Your task to perform on an android device: View the shopping cart on costco. Search for "razer blade" on costco, select the first entry, and add it to the cart. Image 0: 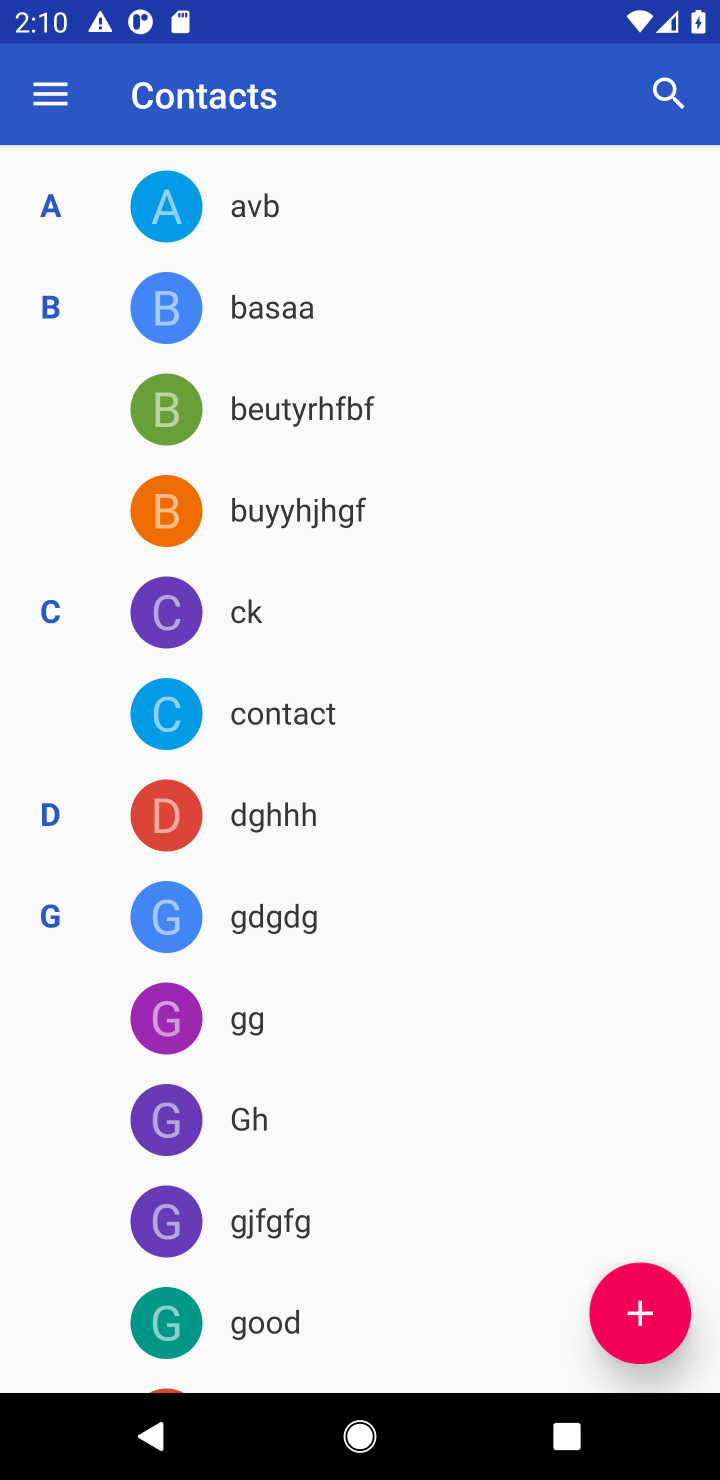
Step 0: press home button
Your task to perform on an android device: View the shopping cart on costco. Search for "razer blade" on costco, select the first entry, and add it to the cart. Image 1: 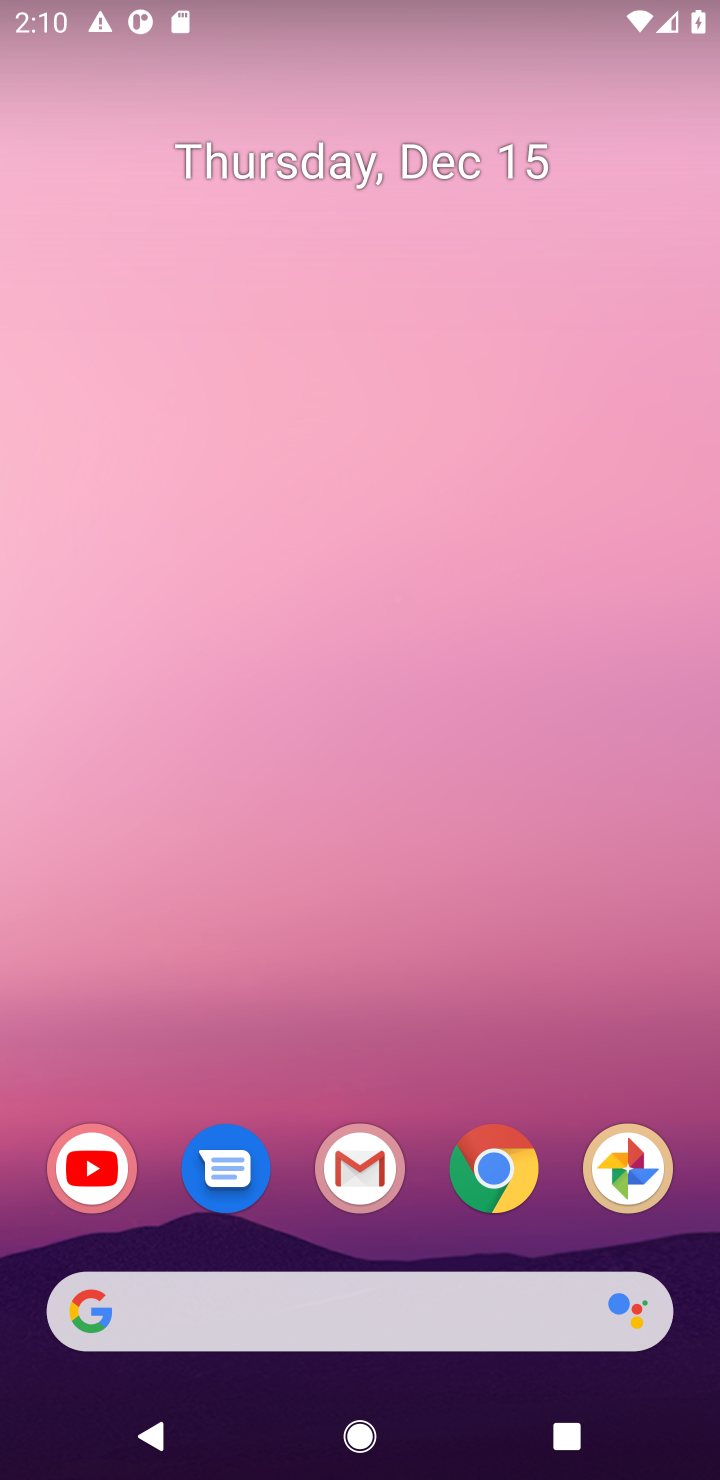
Step 1: click (493, 1175)
Your task to perform on an android device: View the shopping cart on costco. Search for "razer blade" on costco, select the first entry, and add it to the cart. Image 2: 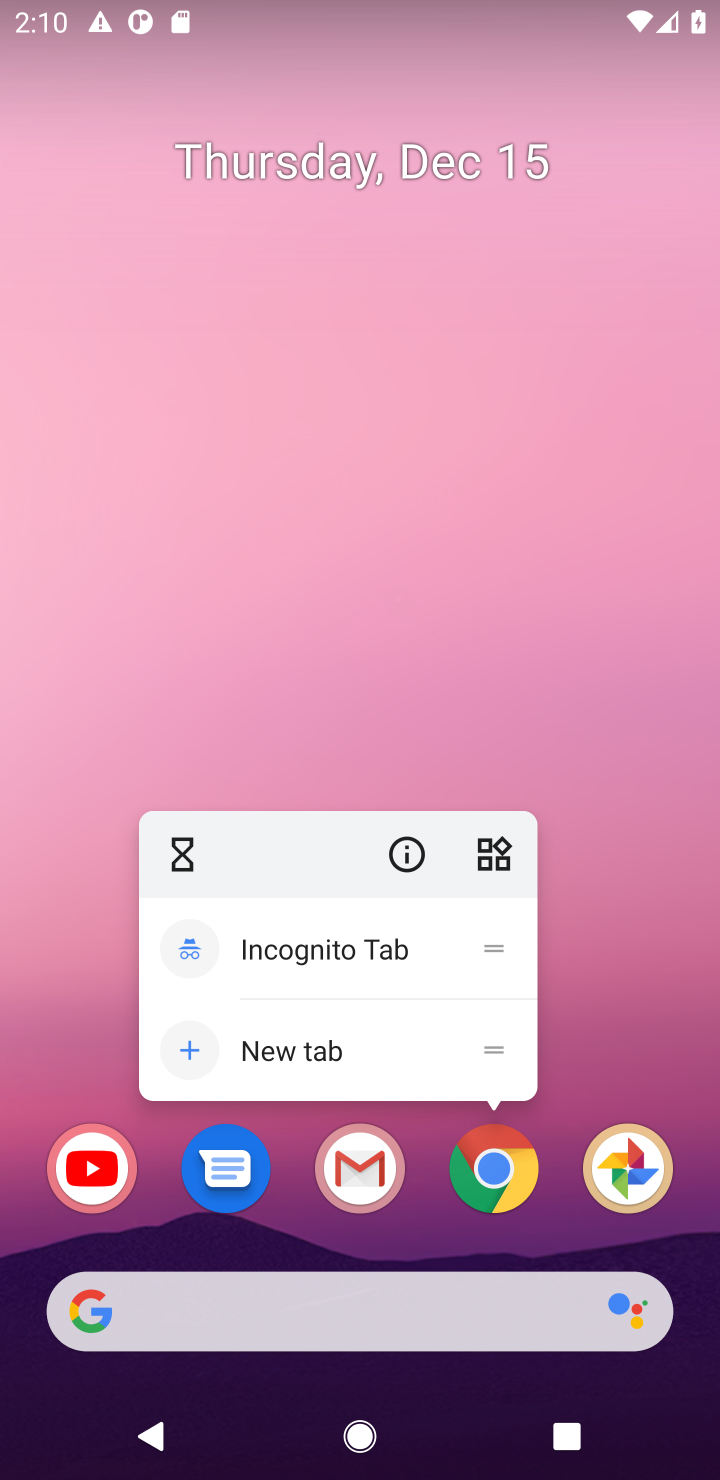
Step 2: click (493, 1175)
Your task to perform on an android device: View the shopping cart on costco. Search for "razer blade" on costco, select the first entry, and add it to the cart. Image 3: 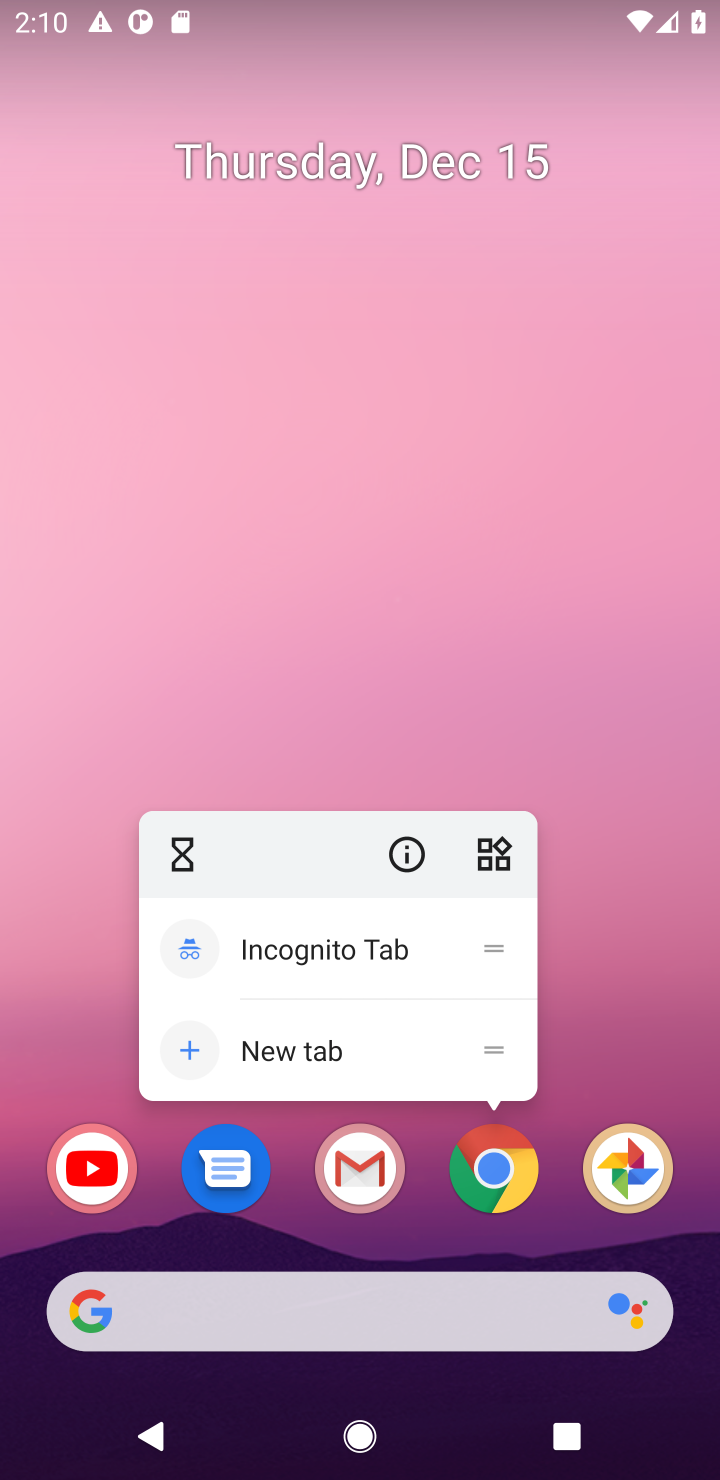
Step 3: click (493, 1175)
Your task to perform on an android device: View the shopping cart on costco. Search for "razer blade" on costco, select the first entry, and add it to the cart. Image 4: 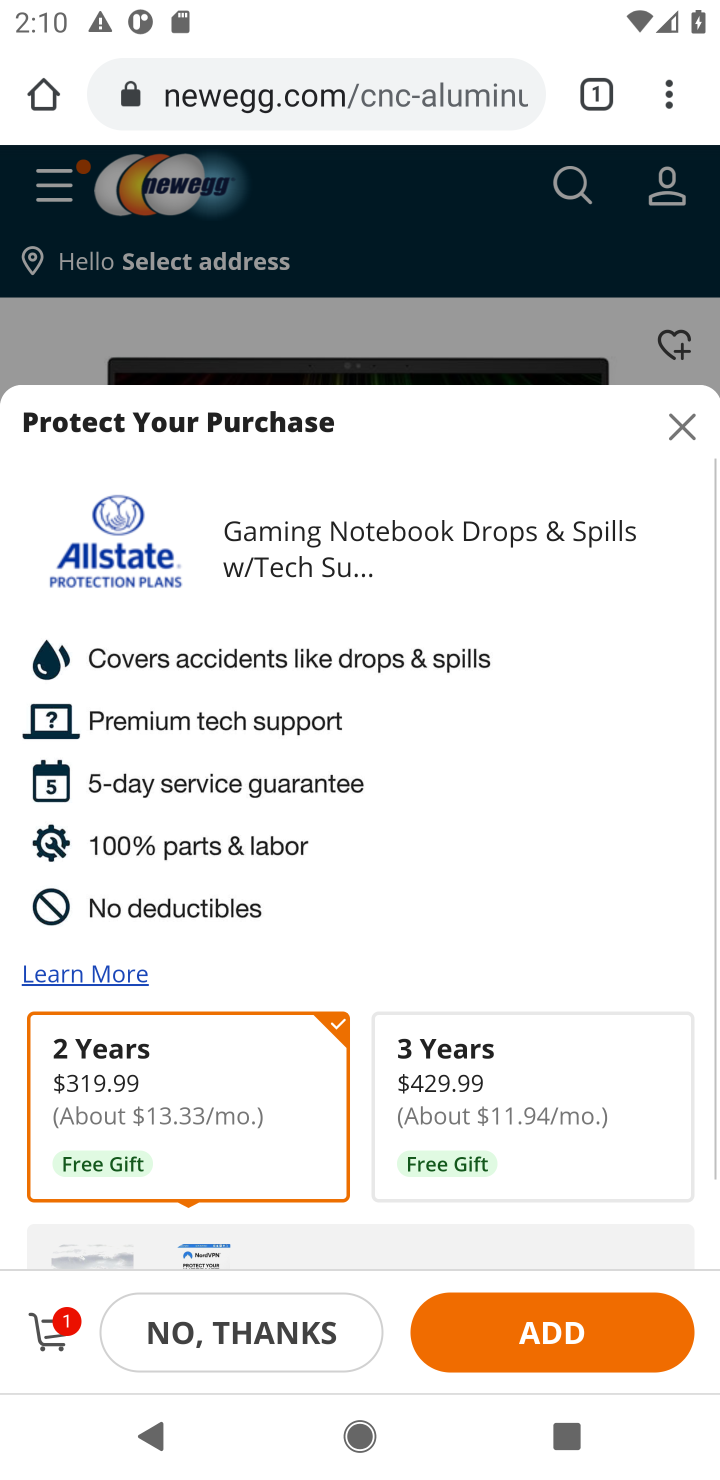
Step 4: click (323, 93)
Your task to perform on an android device: View the shopping cart on costco. Search for "razer blade" on costco, select the first entry, and add it to the cart. Image 5: 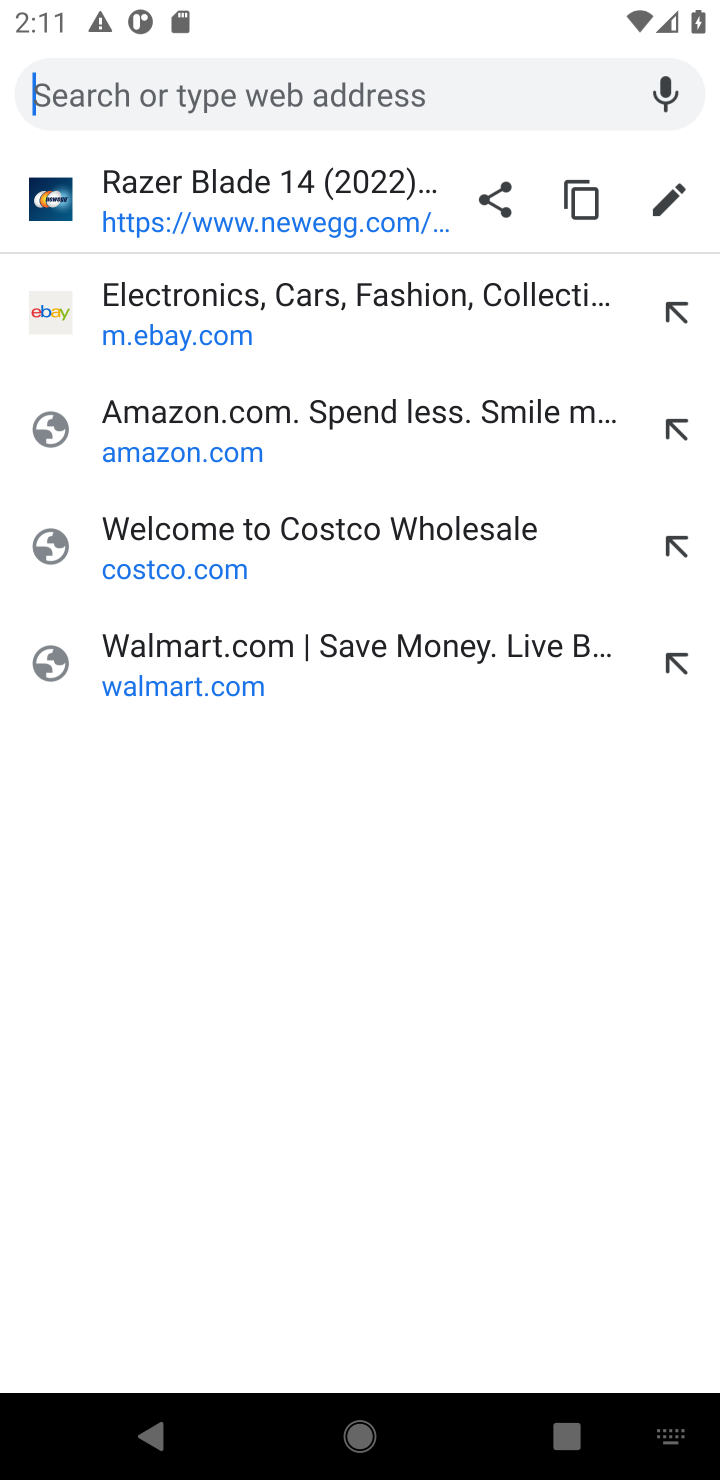
Step 5: click (302, 526)
Your task to perform on an android device: View the shopping cart on costco. Search for "razer blade" on costco, select the first entry, and add it to the cart. Image 6: 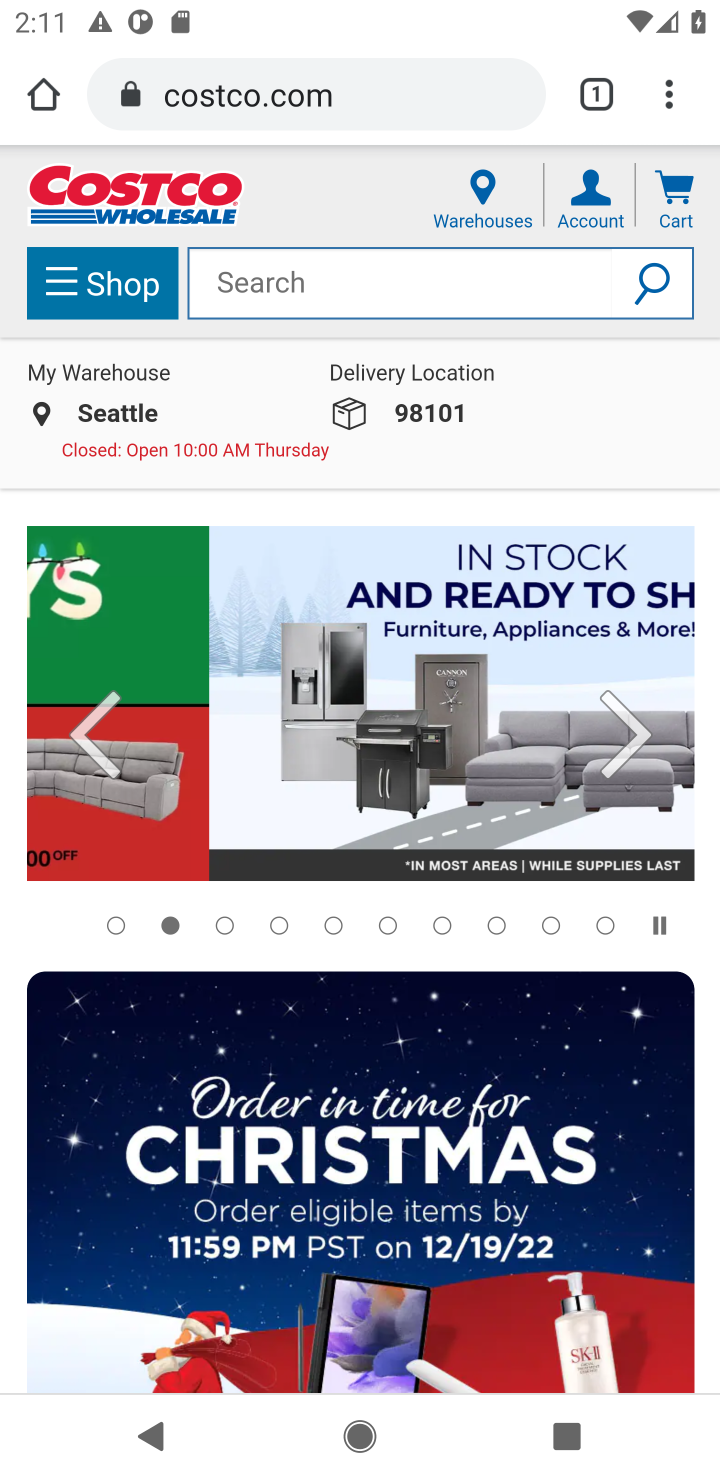
Step 6: click (681, 191)
Your task to perform on an android device: View the shopping cart on costco. Search for "razer blade" on costco, select the first entry, and add it to the cart. Image 7: 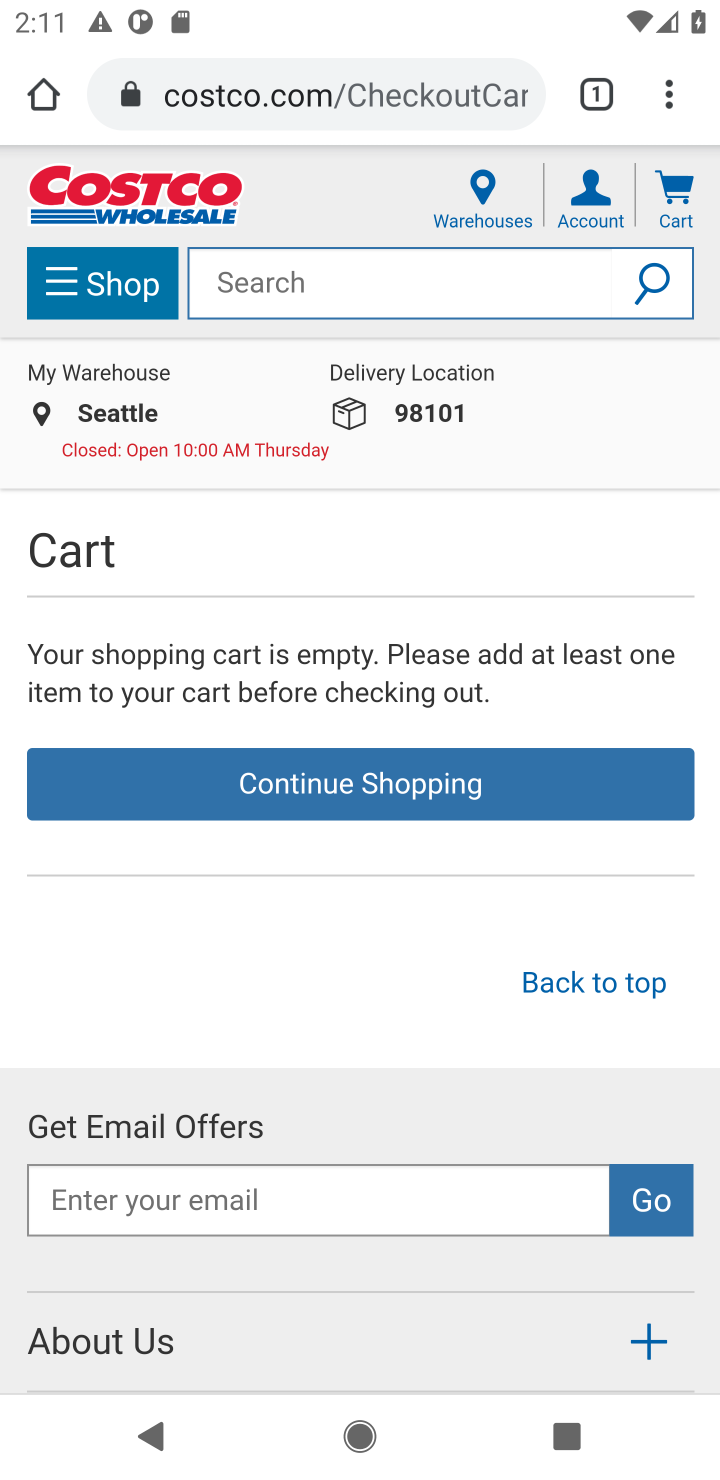
Step 7: click (550, 273)
Your task to perform on an android device: View the shopping cart on costco. Search for "razer blade" on costco, select the first entry, and add it to the cart. Image 8: 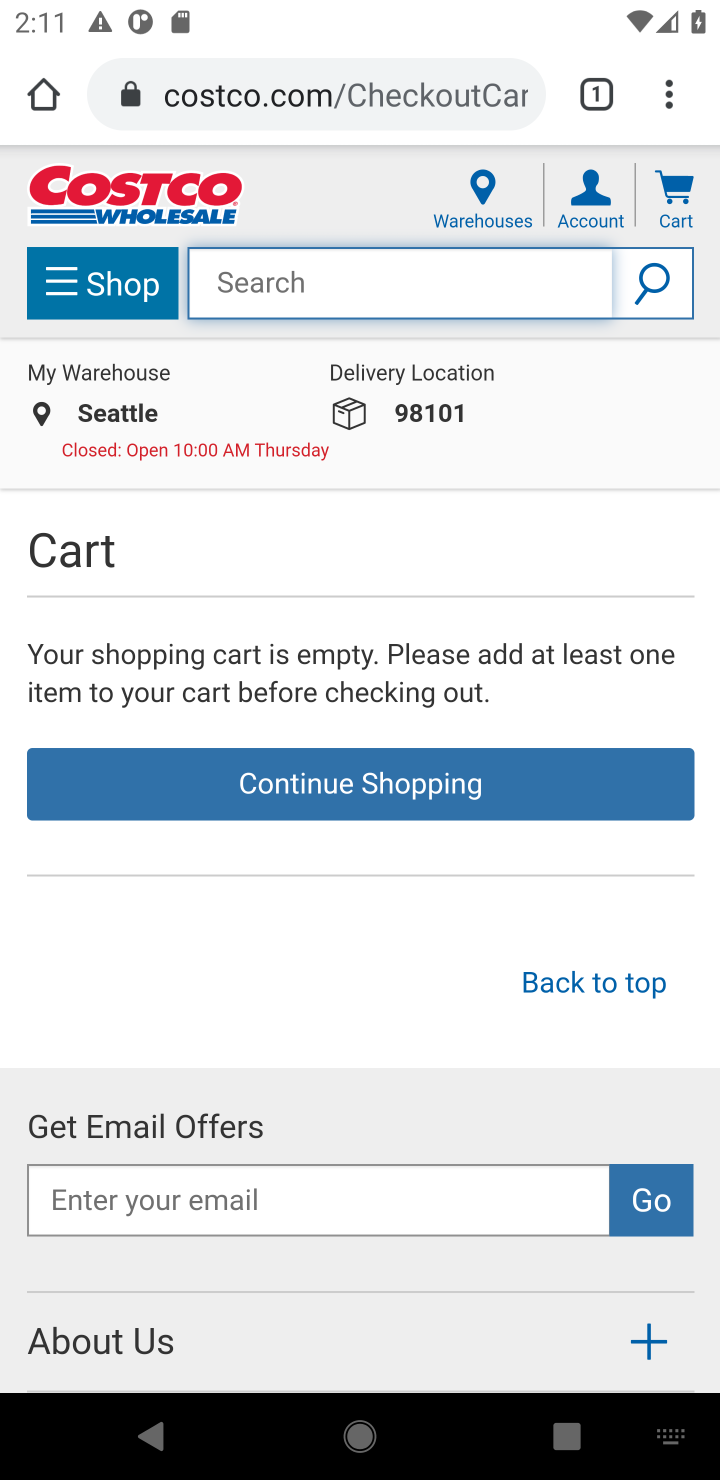
Step 8: type "razer blade"
Your task to perform on an android device: View the shopping cart on costco. Search for "razer blade" on costco, select the first entry, and add it to the cart. Image 9: 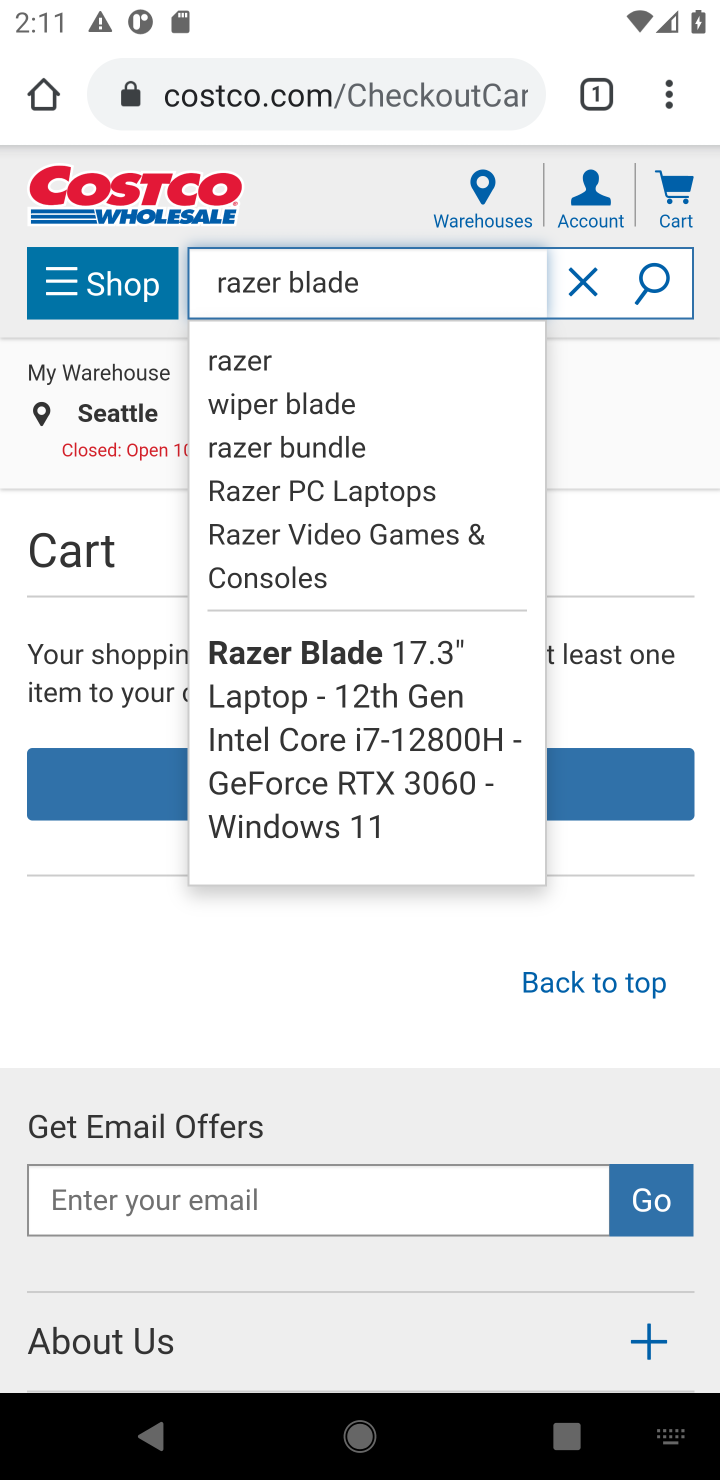
Step 9: click (662, 289)
Your task to perform on an android device: View the shopping cart on costco. Search for "razer blade" on costco, select the first entry, and add it to the cart. Image 10: 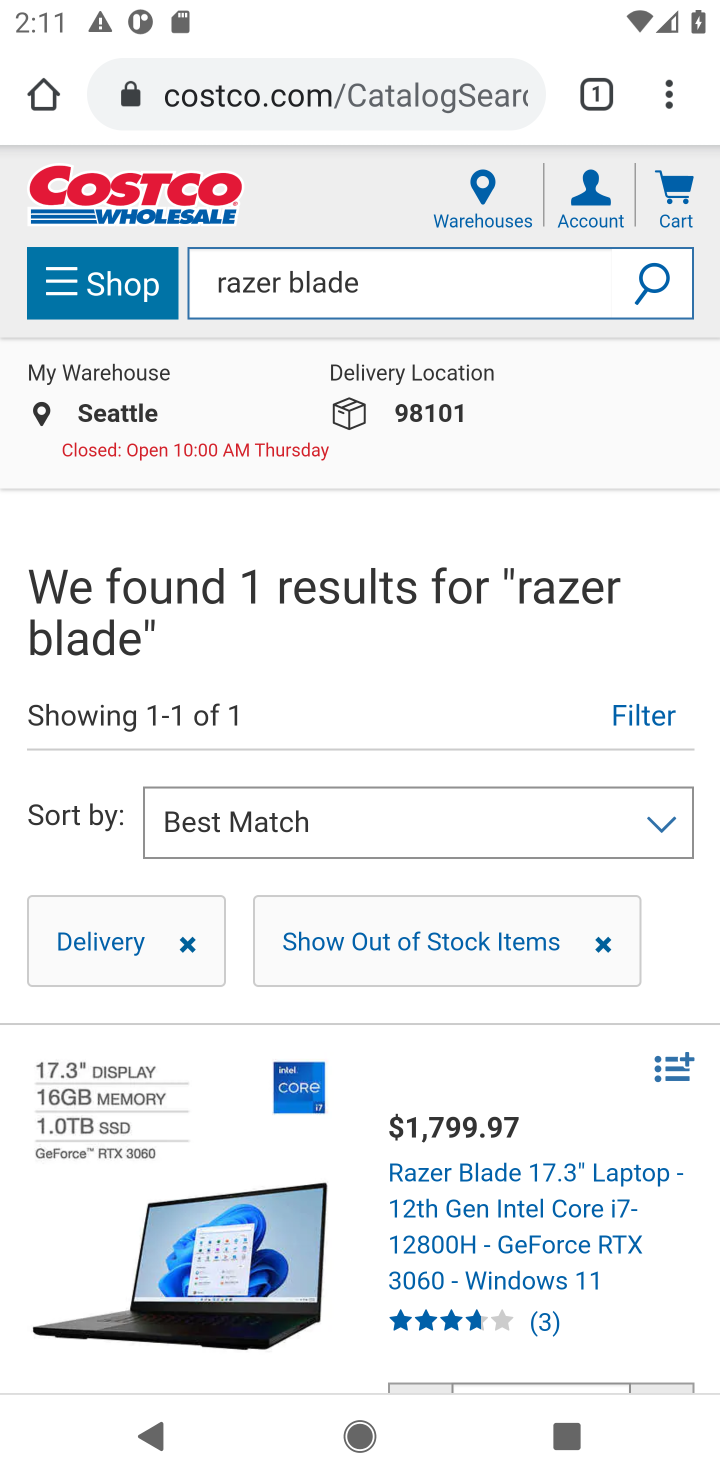
Step 10: click (450, 1224)
Your task to perform on an android device: View the shopping cart on costco. Search for "razer blade" on costco, select the first entry, and add it to the cart. Image 11: 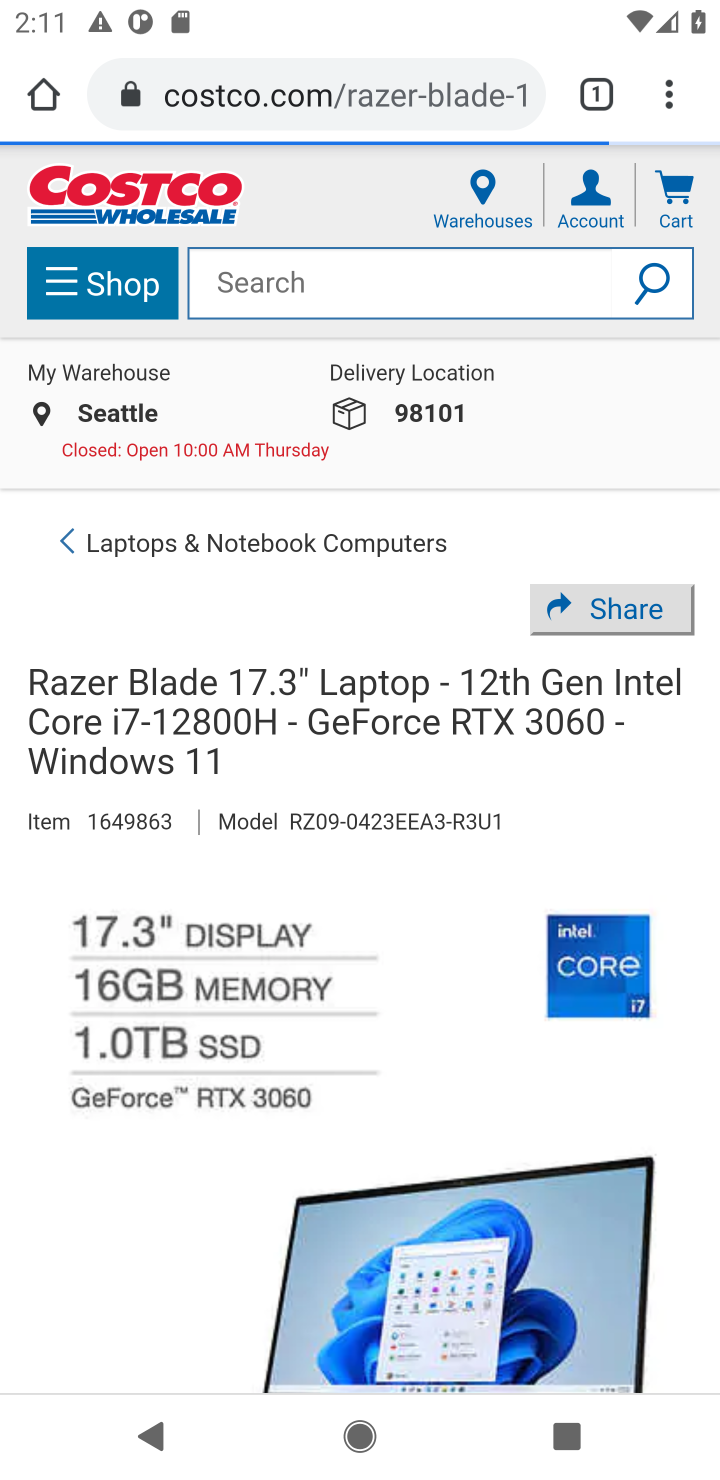
Step 11: drag from (264, 1118) to (582, 423)
Your task to perform on an android device: View the shopping cart on costco. Search for "razer blade" on costco, select the first entry, and add it to the cart. Image 12: 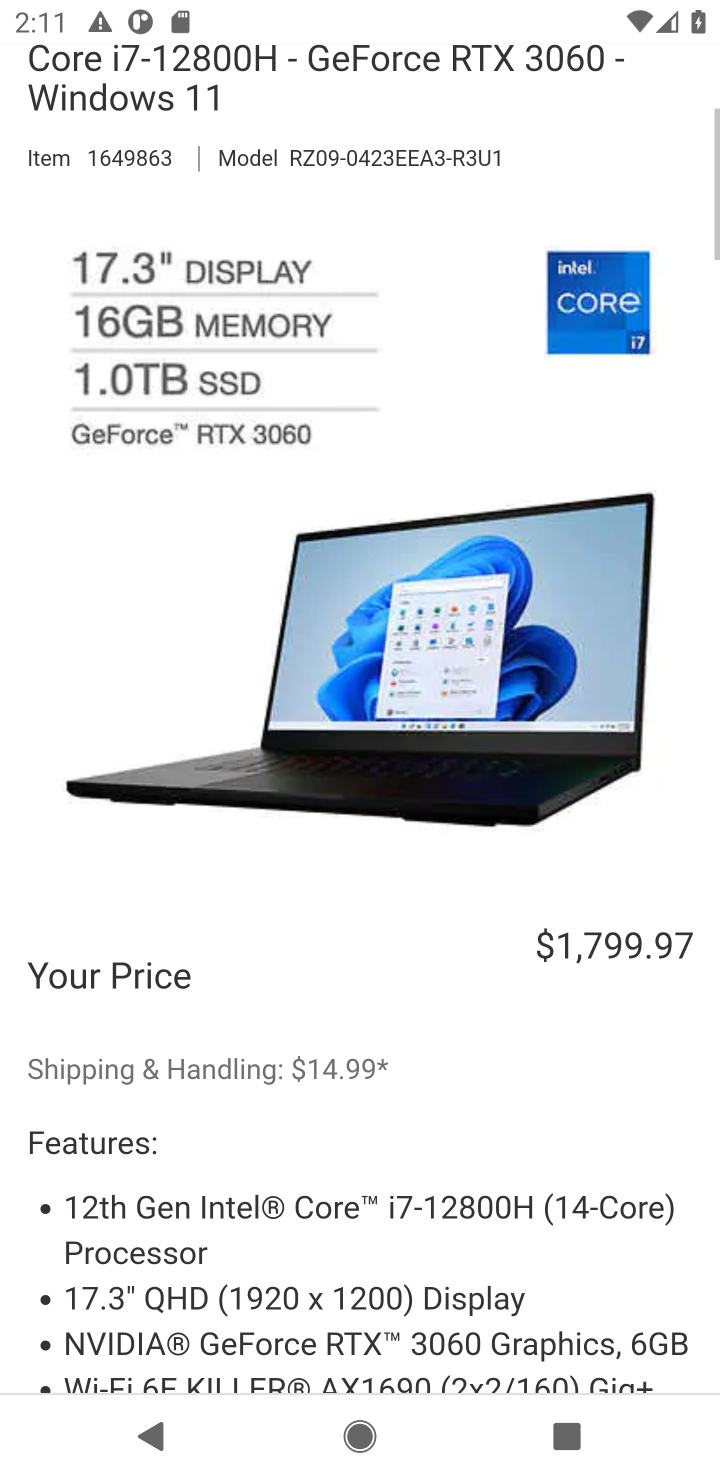
Step 12: drag from (399, 1064) to (536, 463)
Your task to perform on an android device: View the shopping cart on costco. Search for "razer blade" on costco, select the first entry, and add it to the cart. Image 13: 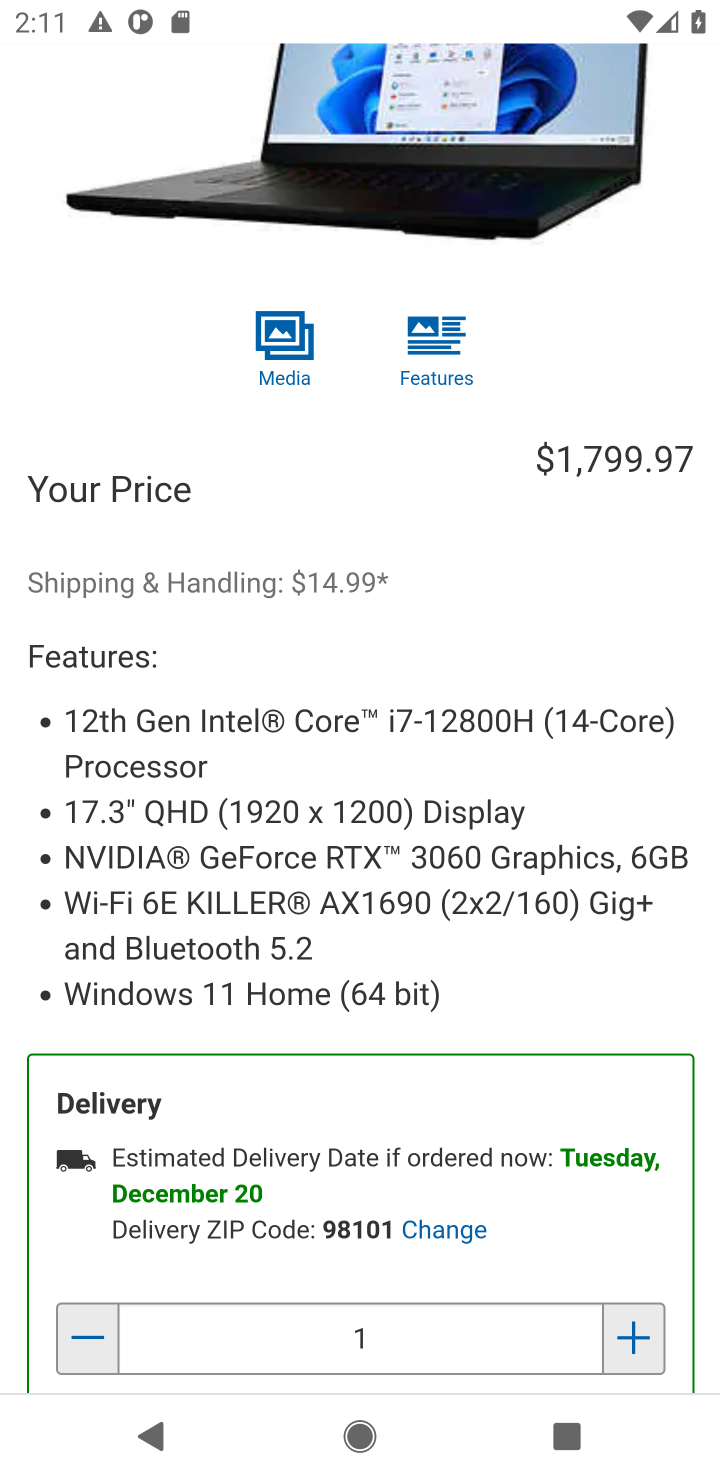
Step 13: drag from (433, 818) to (558, 550)
Your task to perform on an android device: View the shopping cart on costco. Search for "razer blade" on costco, select the first entry, and add it to the cart. Image 14: 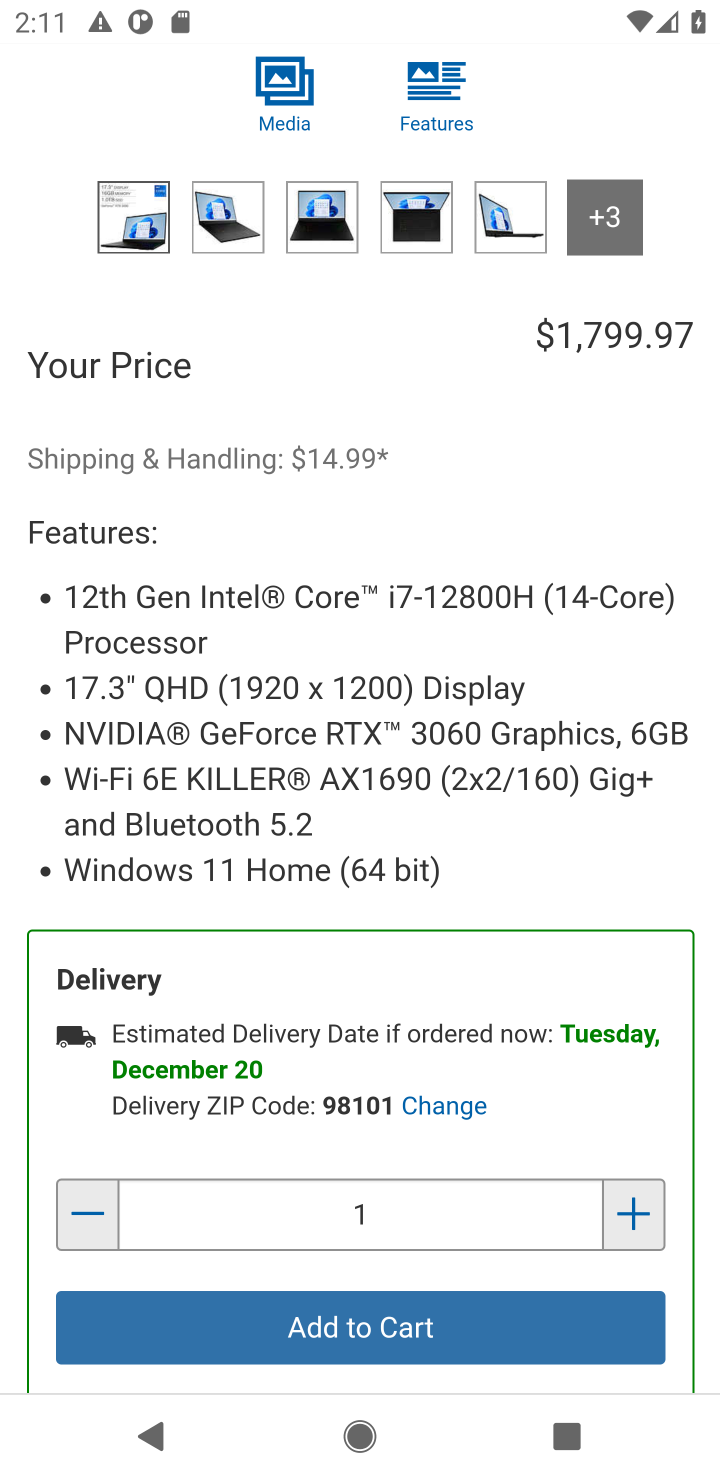
Step 14: click (371, 1328)
Your task to perform on an android device: View the shopping cart on costco. Search for "razer blade" on costco, select the first entry, and add it to the cart. Image 15: 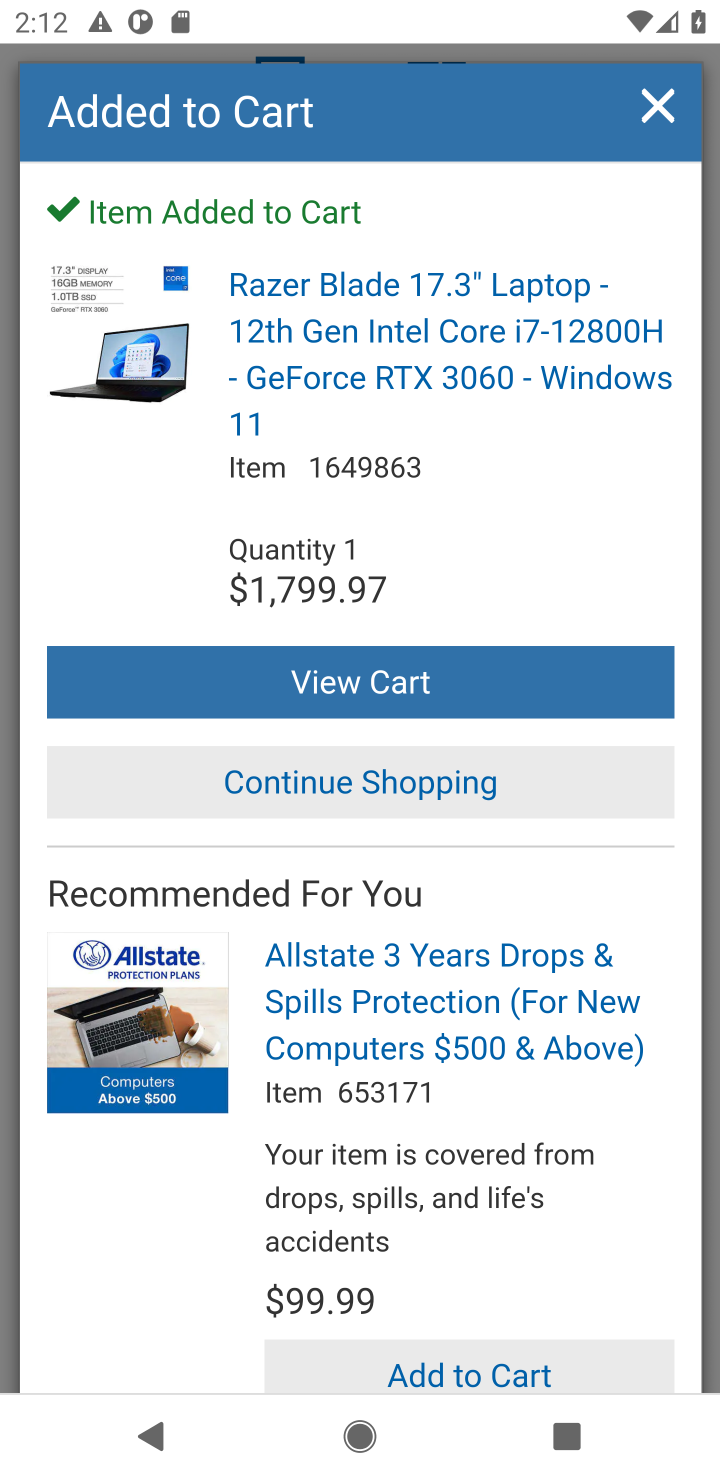
Step 15: click (477, 685)
Your task to perform on an android device: View the shopping cart on costco. Search for "razer blade" on costco, select the first entry, and add it to the cart. Image 16: 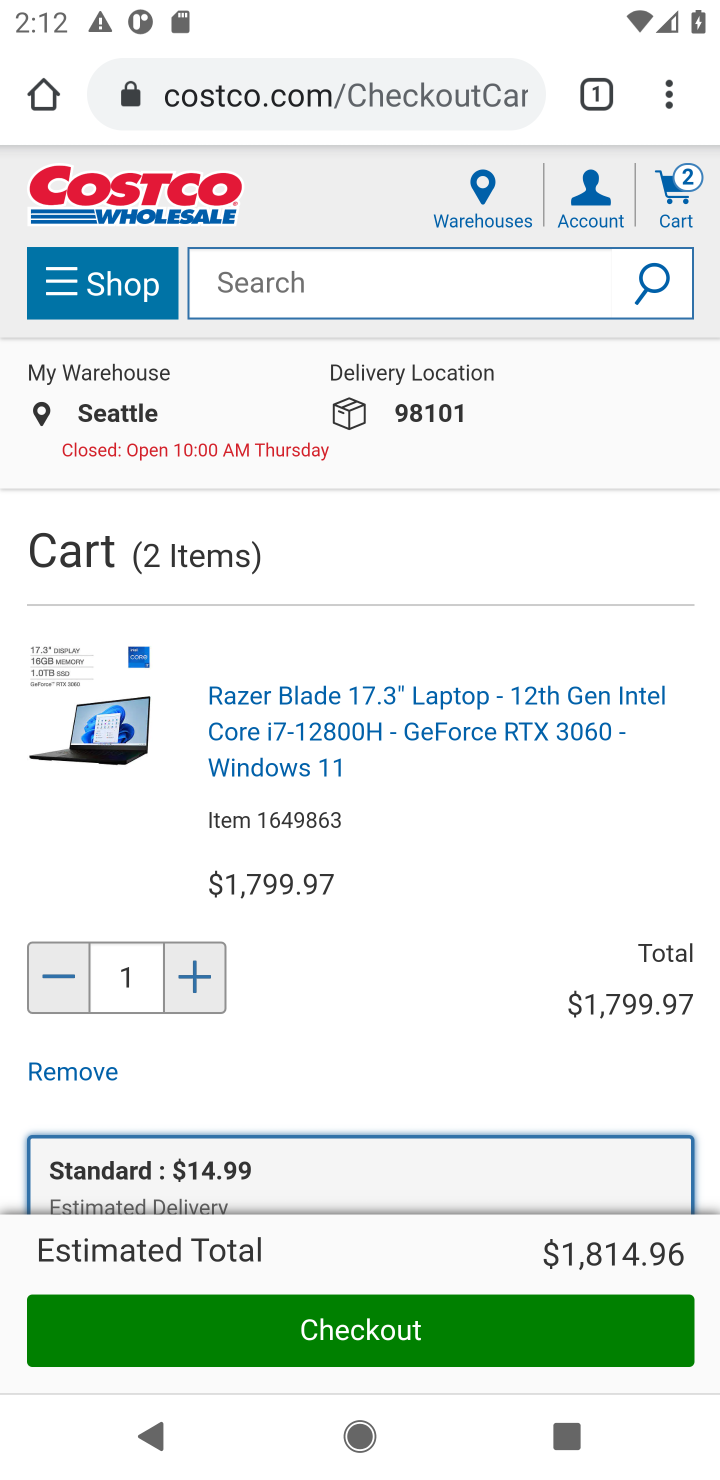
Step 16: task complete